Your task to perform on an android device: clear all cookies in the chrome app Image 0: 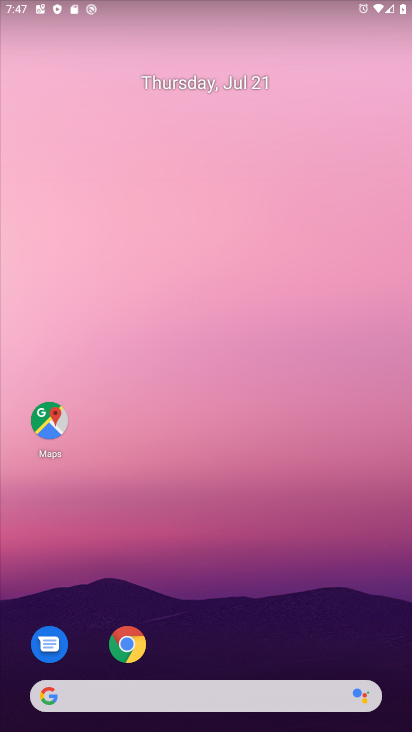
Step 0: drag from (188, 637) to (172, 161)
Your task to perform on an android device: clear all cookies in the chrome app Image 1: 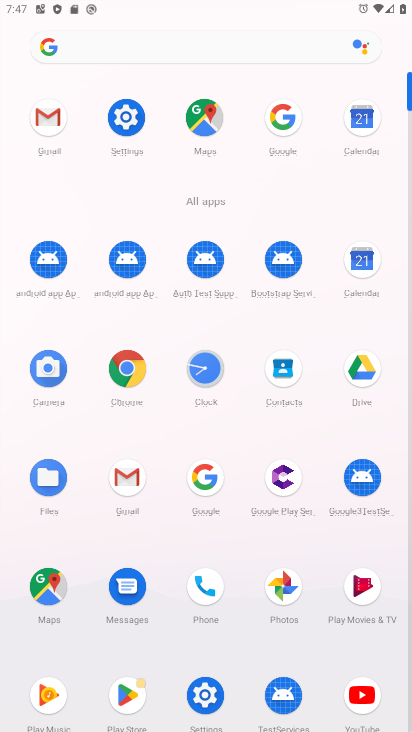
Step 1: click (126, 358)
Your task to perform on an android device: clear all cookies in the chrome app Image 2: 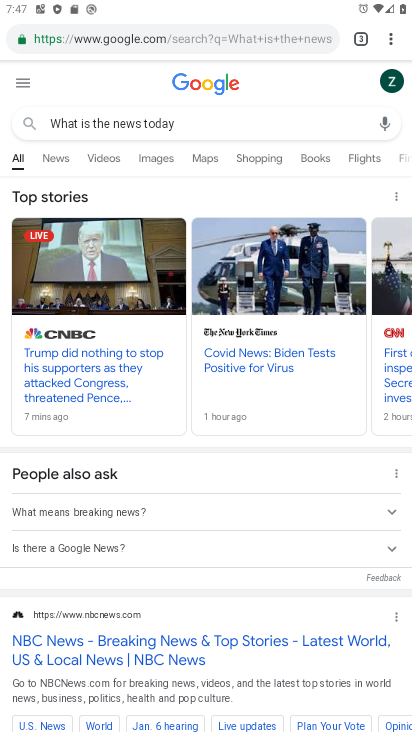
Step 2: click (392, 35)
Your task to perform on an android device: clear all cookies in the chrome app Image 3: 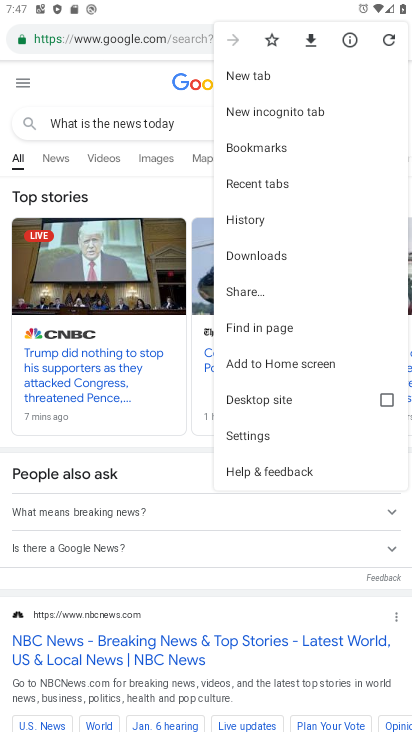
Step 3: click (251, 438)
Your task to perform on an android device: clear all cookies in the chrome app Image 4: 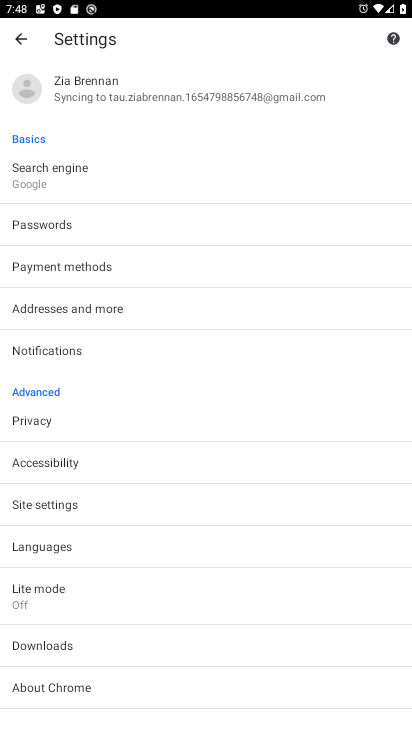
Step 4: click (76, 512)
Your task to perform on an android device: clear all cookies in the chrome app Image 5: 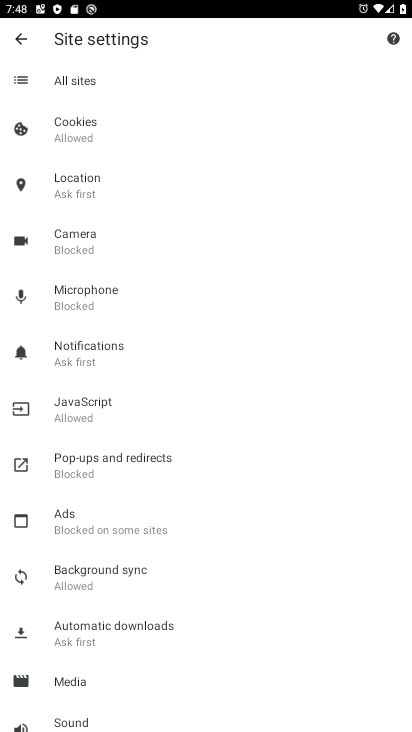
Step 5: click (84, 116)
Your task to perform on an android device: clear all cookies in the chrome app Image 6: 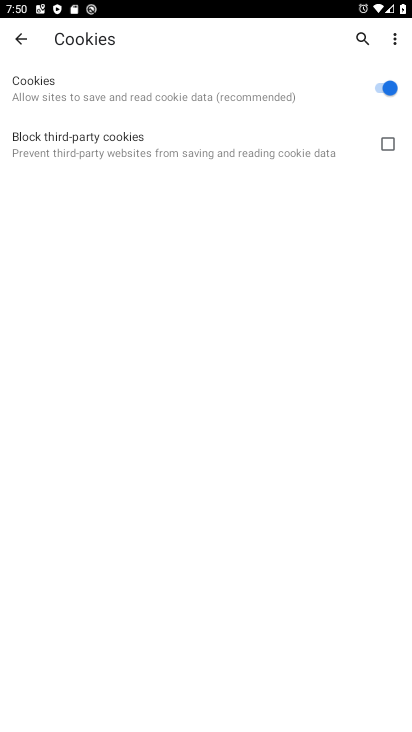
Step 6: task complete